Your task to perform on an android device: Open CNN.com Image 0: 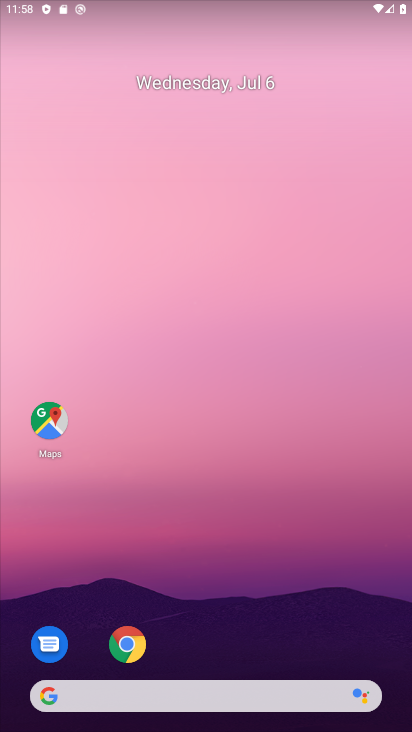
Step 0: click (137, 643)
Your task to perform on an android device: Open CNN.com Image 1: 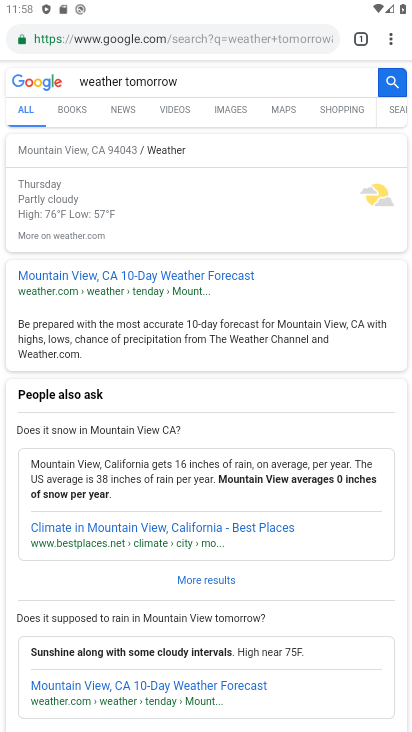
Step 1: click (212, 46)
Your task to perform on an android device: Open CNN.com Image 2: 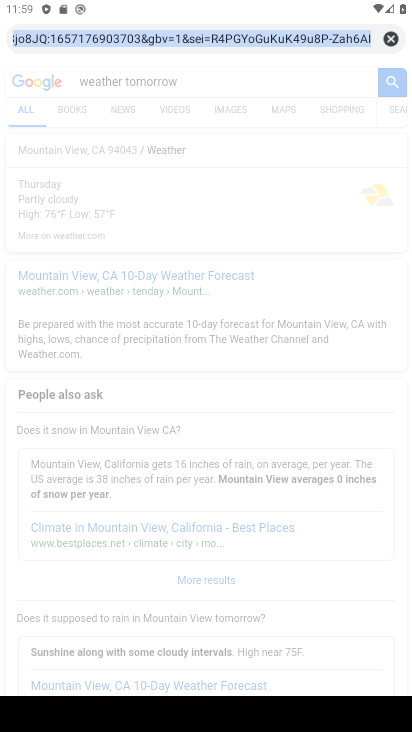
Step 2: type "cnn.com"
Your task to perform on an android device: Open CNN.com Image 3: 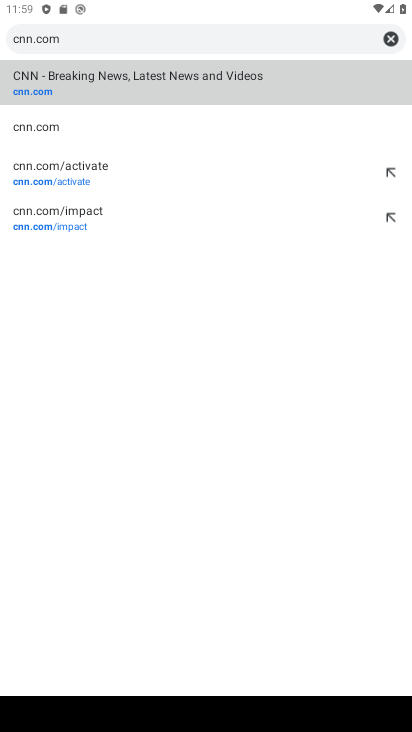
Step 3: click (124, 84)
Your task to perform on an android device: Open CNN.com Image 4: 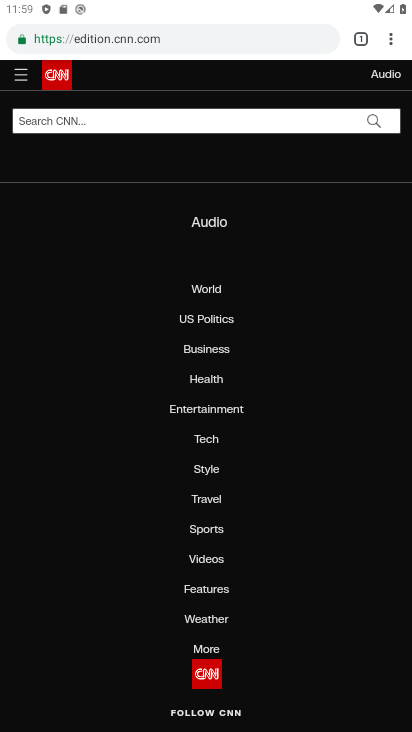
Step 4: task complete